Your task to perform on an android device: turn off sleep mode Image 0: 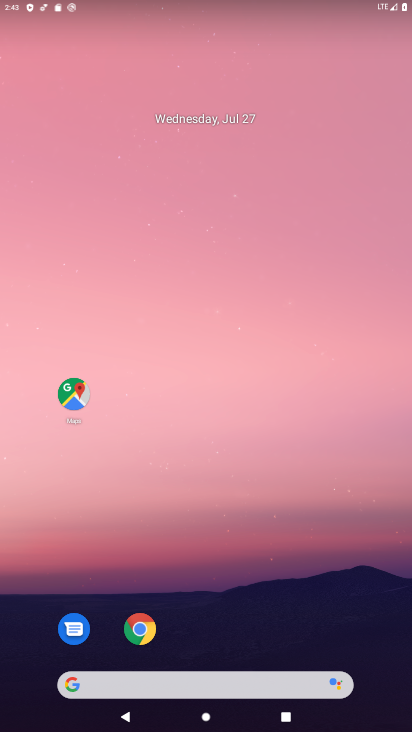
Step 0: drag from (265, 601) to (276, 93)
Your task to perform on an android device: turn off sleep mode Image 1: 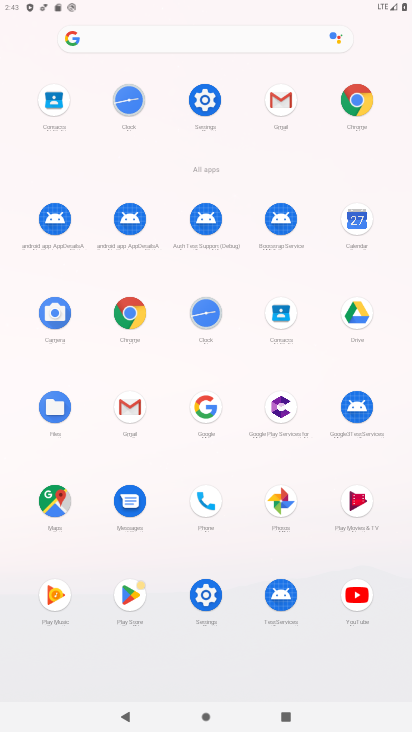
Step 1: click (217, 77)
Your task to perform on an android device: turn off sleep mode Image 2: 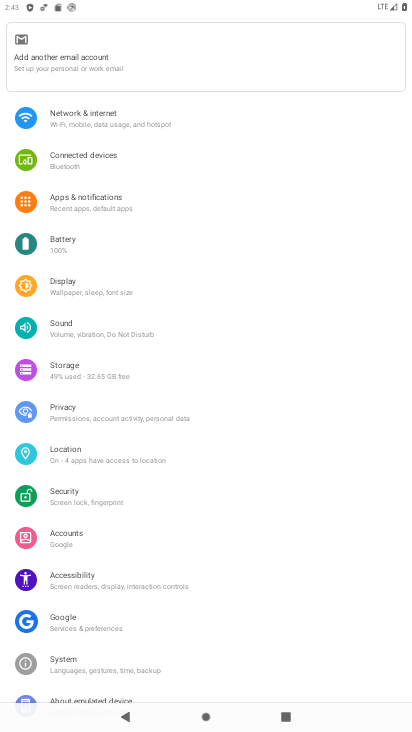
Step 2: task complete